Your task to perform on an android device: Open privacy settings Image 0: 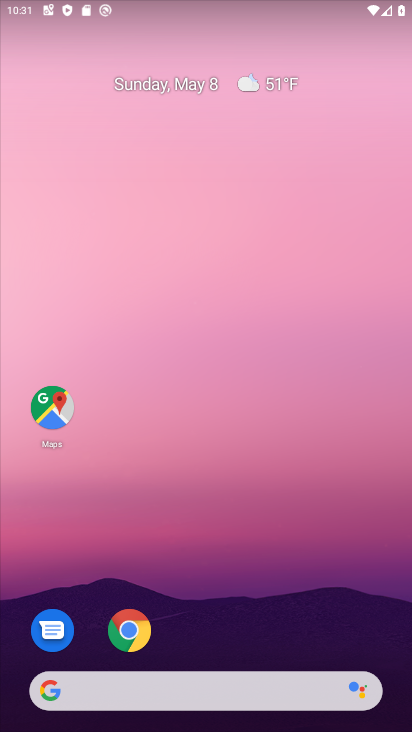
Step 0: drag from (320, 623) to (252, 55)
Your task to perform on an android device: Open privacy settings Image 1: 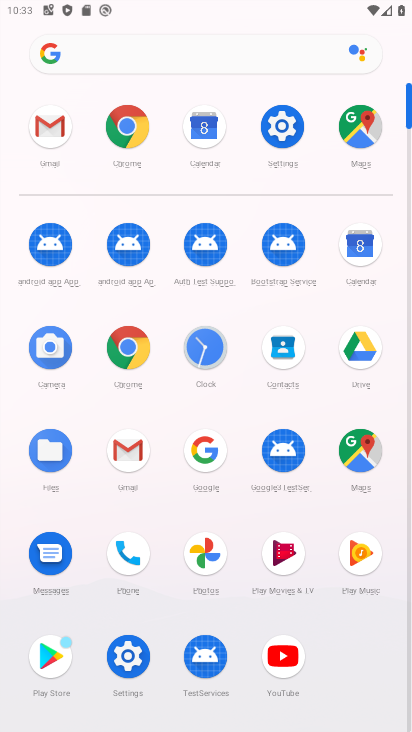
Step 1: click (129, 658)
Your task to perform on an android device: Open privacy settings Image 2: 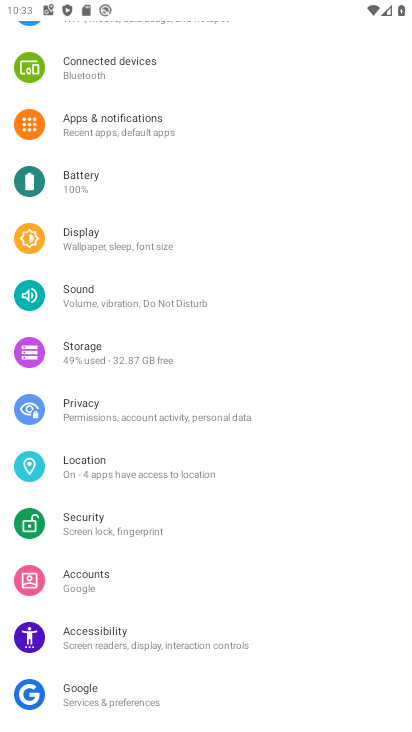
Step 2: click (98, 414)
Your task to perform on an android device: Open privacy settings Image 3: 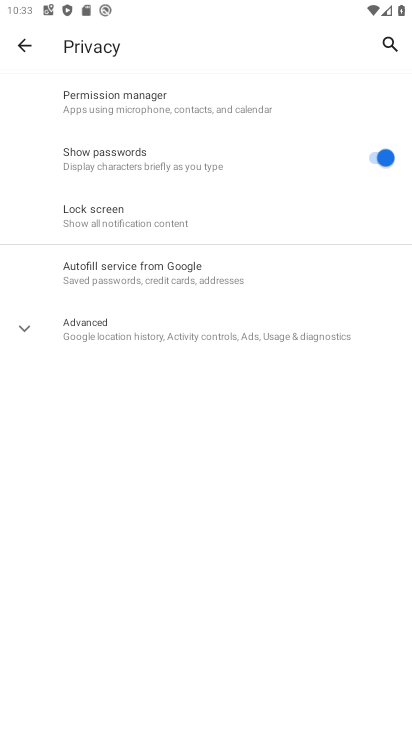
Step 3: task complete